Your task to perform on an android device: turn on airplane mode Image 0: 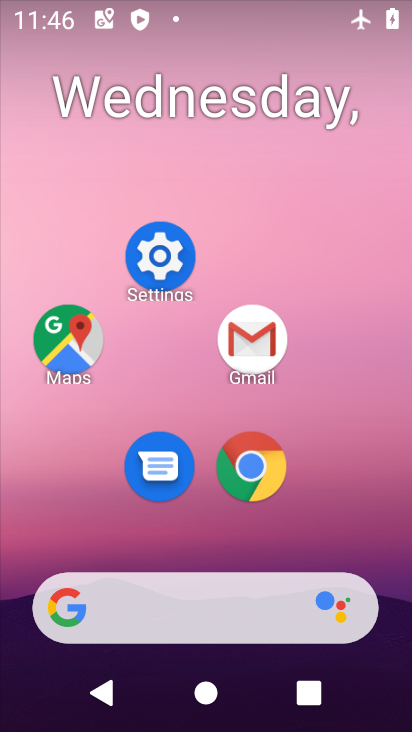
Step 0: click (141, 274)
Your task to perform on an android device: turn on airplane mode Image 1: 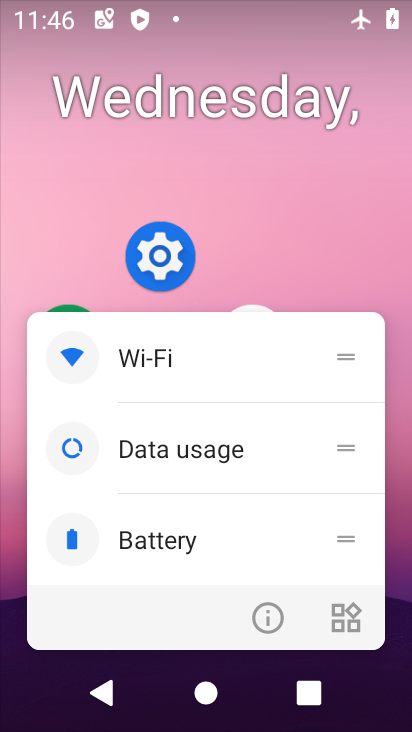
Step 1: click (264, 611)
Your task to perform on an android device: turn on airplane mode Image 2: 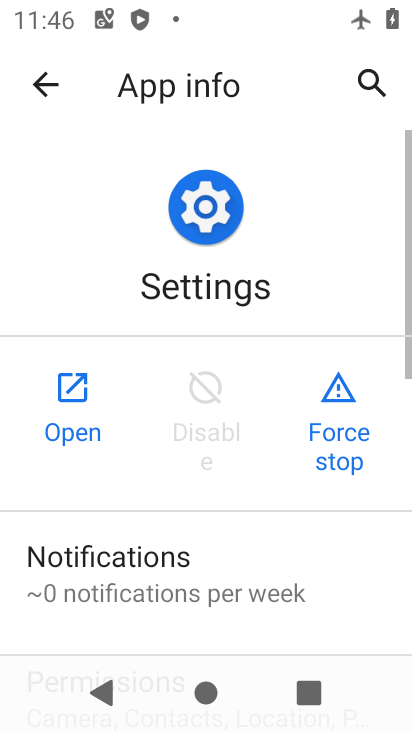
Step 2: click (80, 395)
Your task to perform on an android device: turn on airplane mode Image 3: 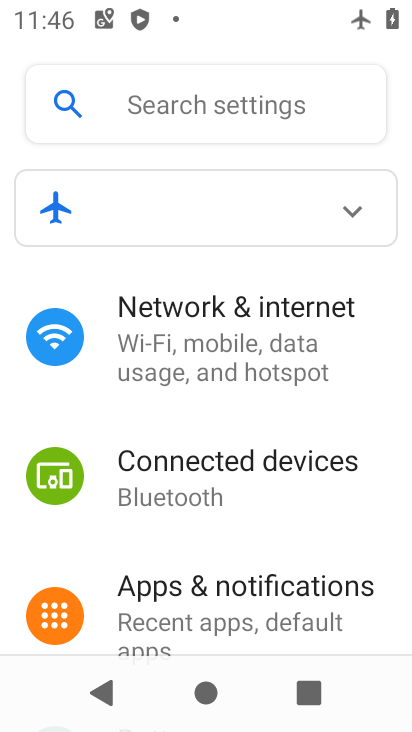
Step 3: click (189, 357)
Your task to perform on an android device: turn on airplane mode Image 4: 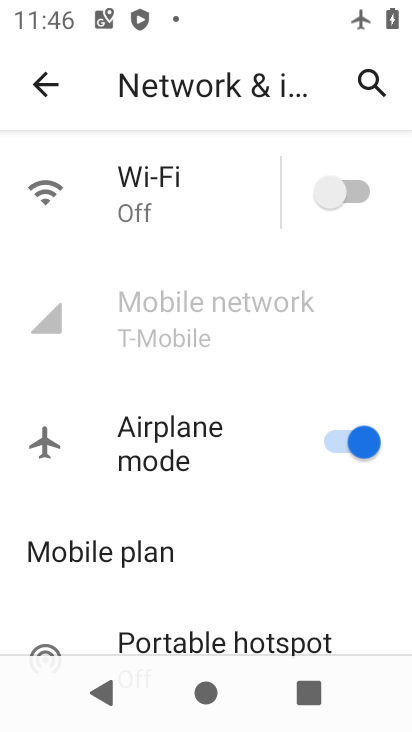
Step 4: task complete